Your task to perform on an android device: What's the weather today? Image 0: 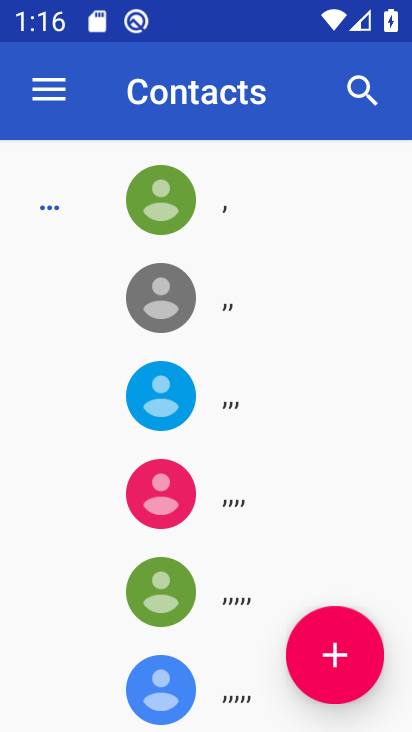
Step 0: press home button
Your task to perform on an android device: What's the weather today? Image 1: 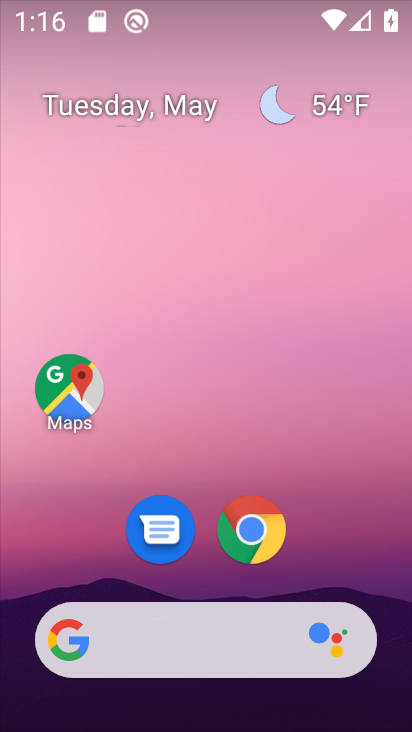
Step 1: drag from (292, 557) to (288, 191)
Your task to perform on an android device: What's the weather today? Image 2: 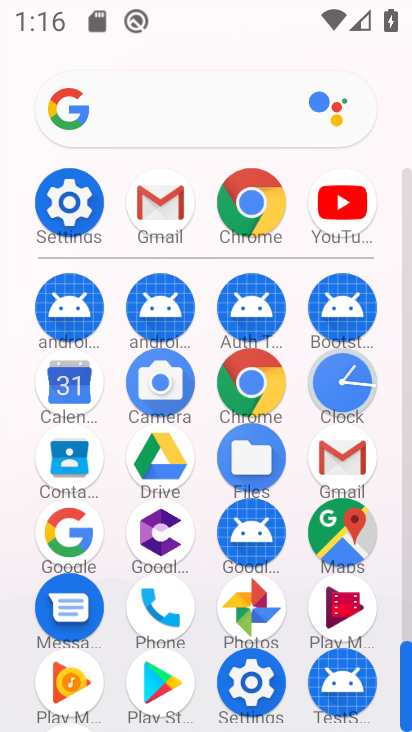
Step 2: click (239, 201)
Your task to perform on an android device: What's the weather today? Image 3: 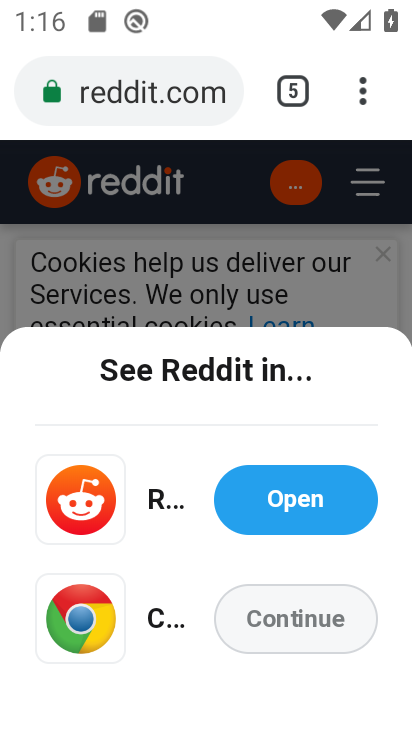
Step 3: click (361, 84)
Your task to perform on an android device: What's the weather today? Image 4: 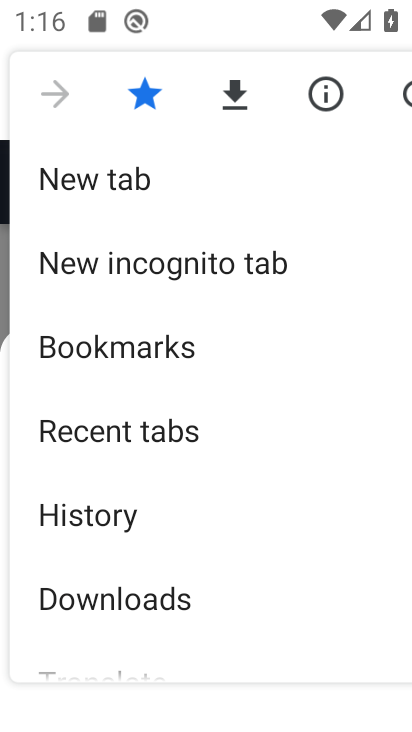
Step 4: click (115, 168)
Your task to perform on an android device: What's the weather today? Image 5: 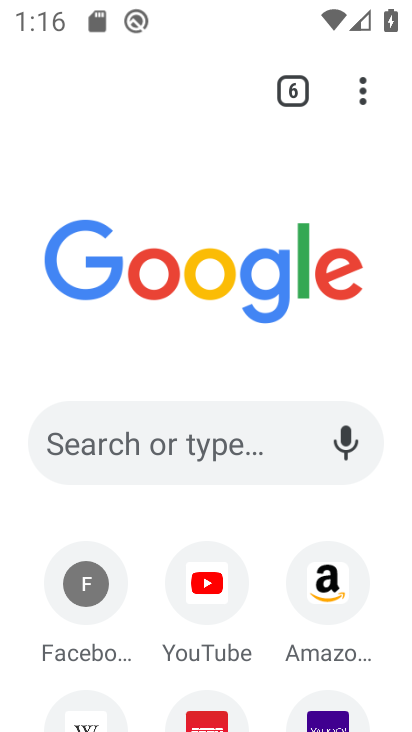
Step 5: click (201, 435)
Your task to perform on an android device: What's the weather today? Image 6: 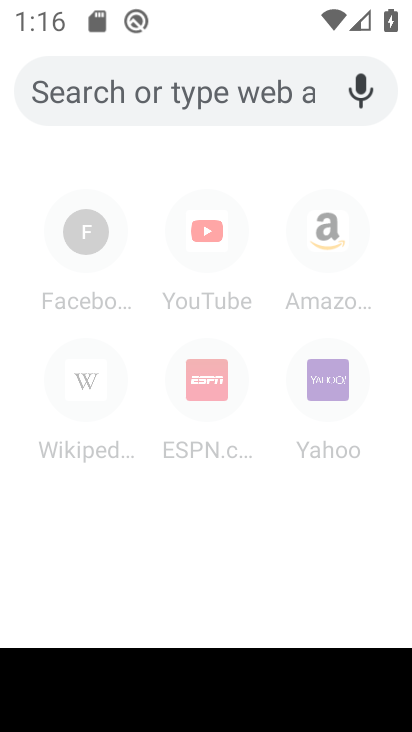
Step 6: click (168, 89)
Your task to perform on an android device: What's the weather today? Image 7: 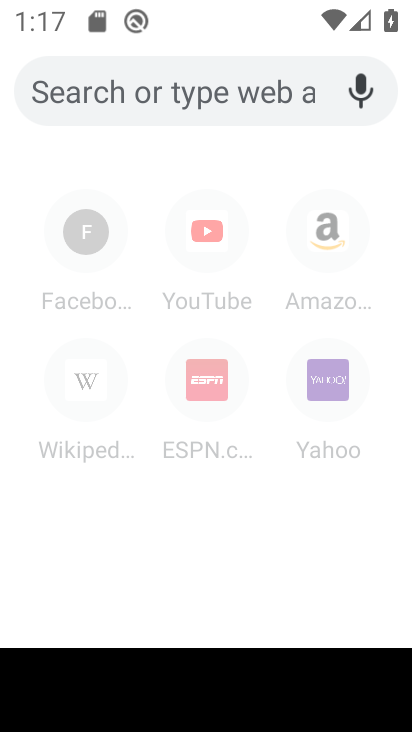
Step 7: type "What's the weather today?"
Your task to perform on an android device: What's the weather today? Image 8: 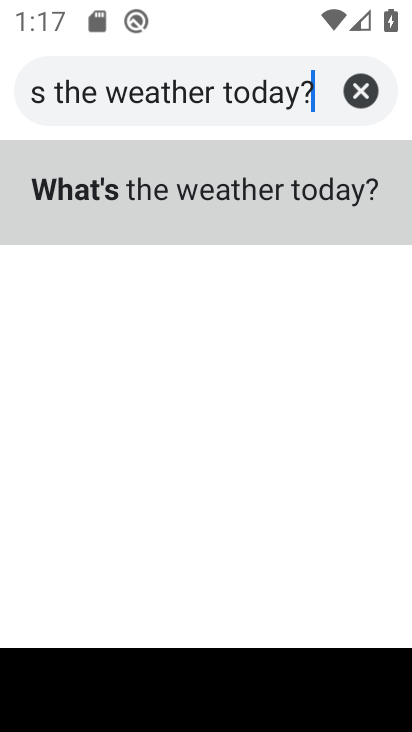
Step 8: click (210, 192)
Your task to perform on an android device: What's the weather today? Image 9: 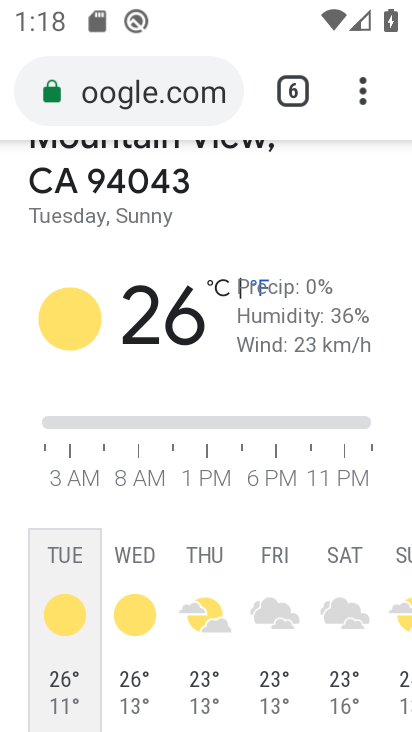
Step 9: task complete